Your task to perform on an android device: toggle wifi Image 0: 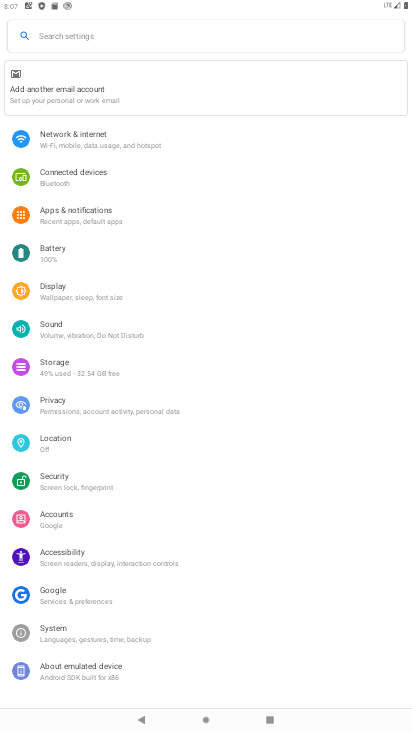
Step 0: click (44, 140)
Your task to perform on an android device: toggle wifi Image 1: 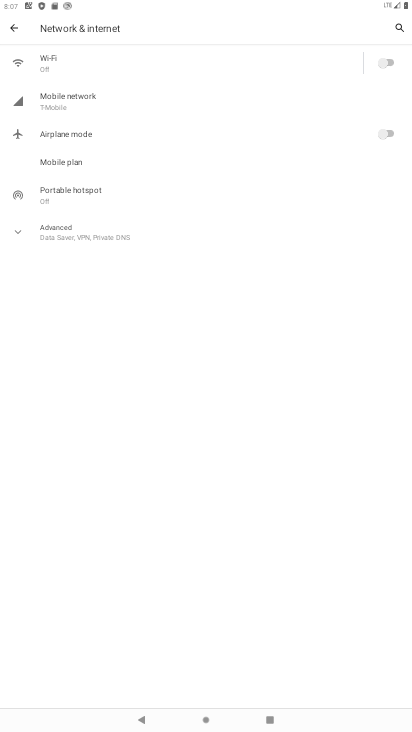
Step 1: click (390, 62)
Your task to perform on an android device: toggle wifi Image 2: 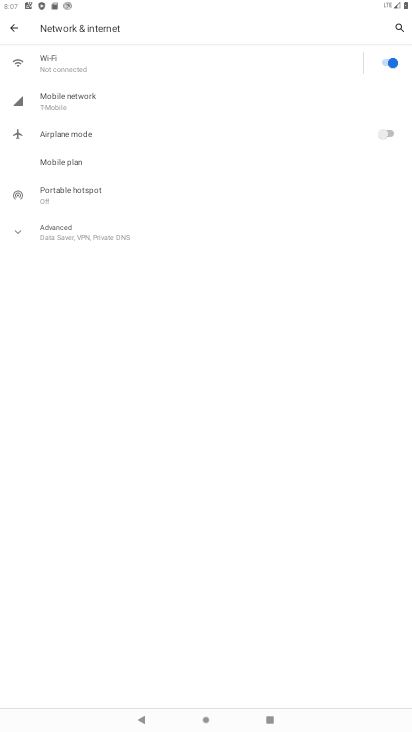
Step 2: task complete